Your task to perform on an android device: toggle notifications settings in the gmail app Image 0: 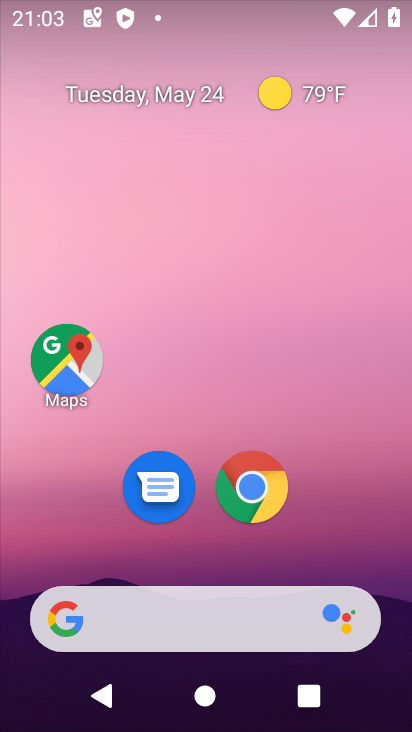
Step 0: press home button
Your task to perform on an android device: toggle notifications settings in the gmail app Image 1: 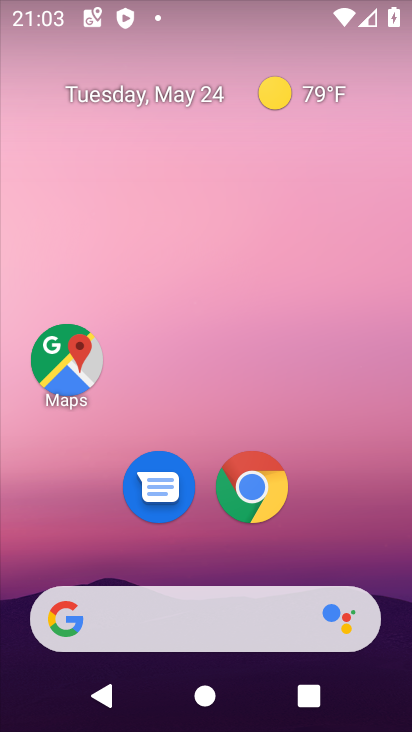
Step 1: drag from (378, 597) to (372, 129)
Your task to perform on an android device: toggle notifications settings in the gmail app Image 2: 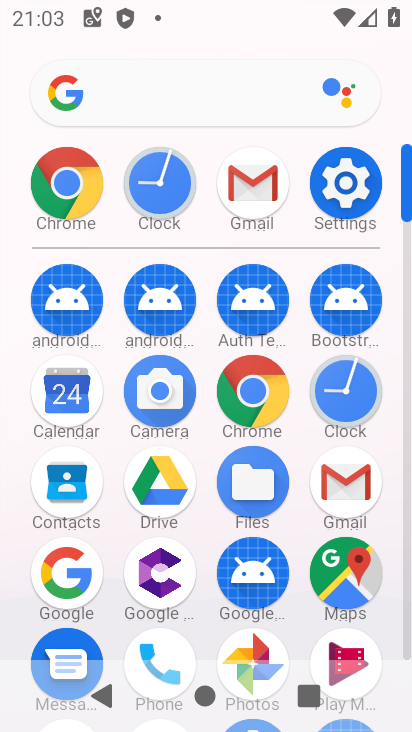
Step 2: click (259, 202)
Your task to perform on an android device: toggle notifications settings in the gmail app Image 3: 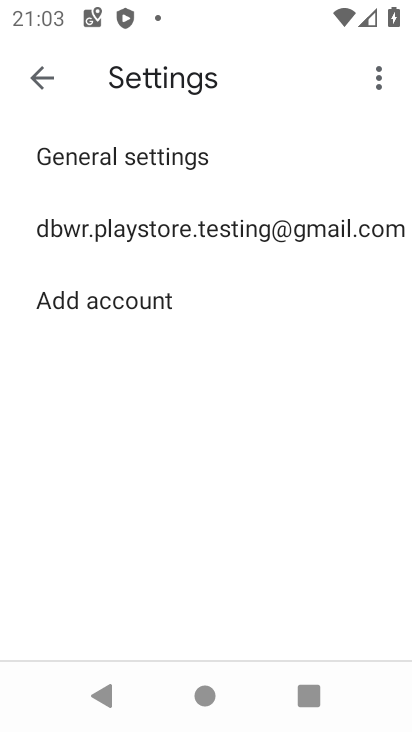
Step 3: press home button
Your task to perform on an android device: toggle notifications settings in the gmail app Image 4: 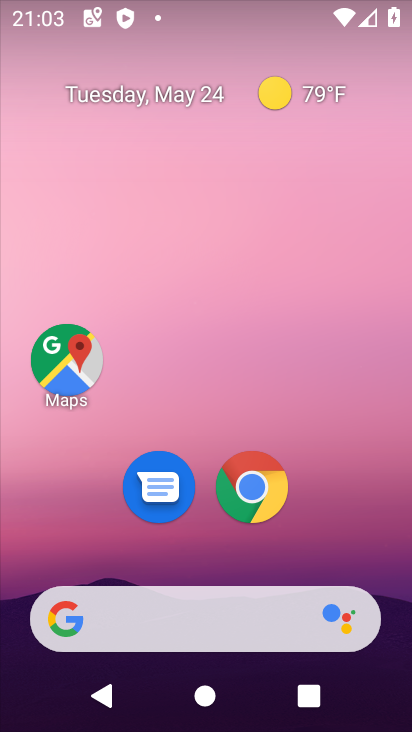
Step 4: drag from (391, 700) to (352, 218)
Your task to perform on an android device: toggle notifications settings in the gmail app Image 5: 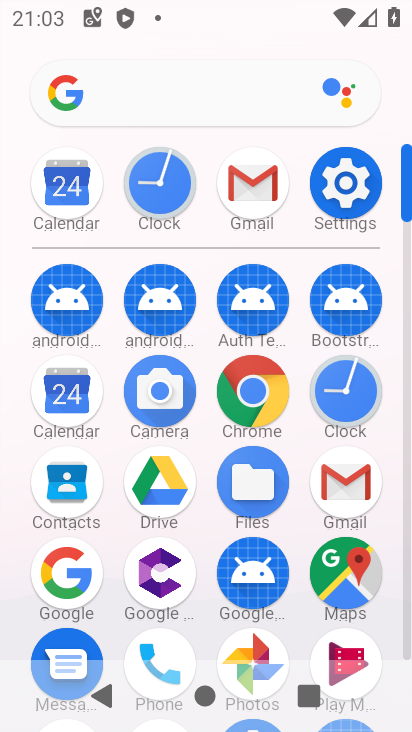
Step 5: click (253, 198)
Your task to perform on an android device: toggle notifications settings in the gmail app Image 6: 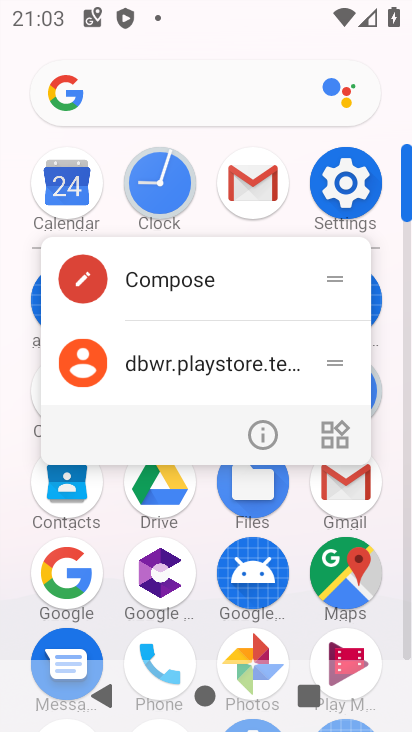
Step 6: click (277, 444)
Your task to perform on an android device: toggle notifications settings in the gmail app Image 7: 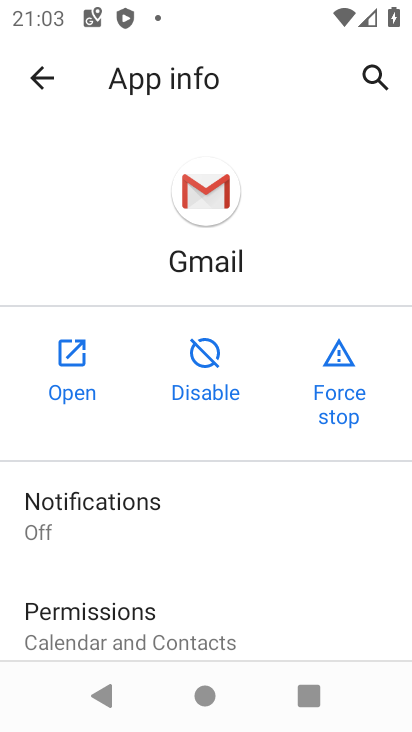
Step 7: click (99, 543)
Your task to perform on an android device: toggle notifications settings in the gmail app Image 8: 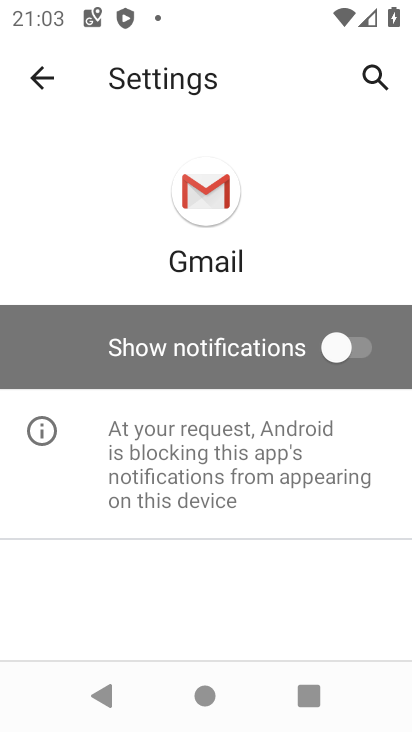
Step 8: click (275, 362)
Your task to perform on an android device: toggle notifications settings in the gmail app Image 9: 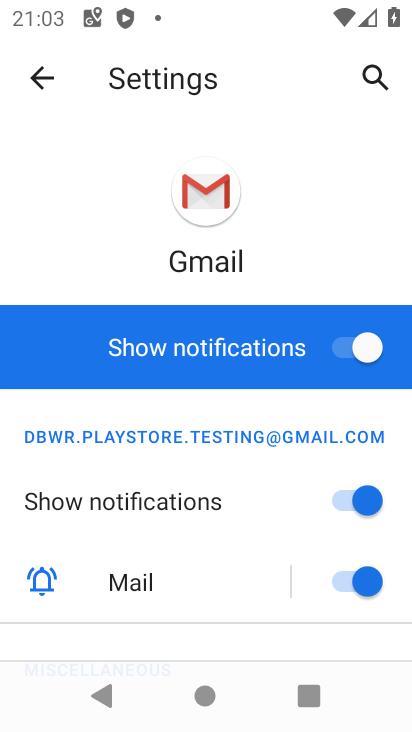
Step 9: task complete